Your task to perform on an android device: change your default location settings in chrome Image 0: 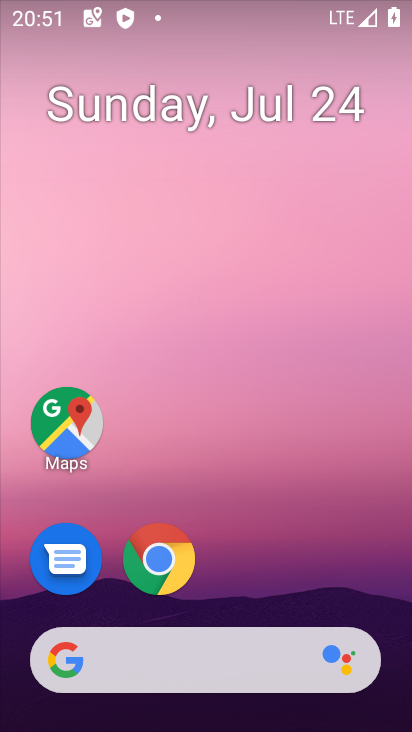
Step 0: press home button
Your task to perform on an android device: change your default location settings in chrome Image 1: 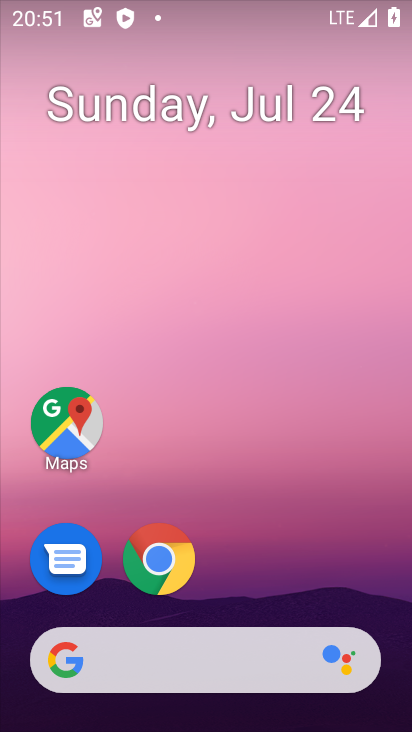
Step 1: drag from (373, 598) to (363, 91)
Your task to perform on an android device: change your default location settings in chrome Image 2: 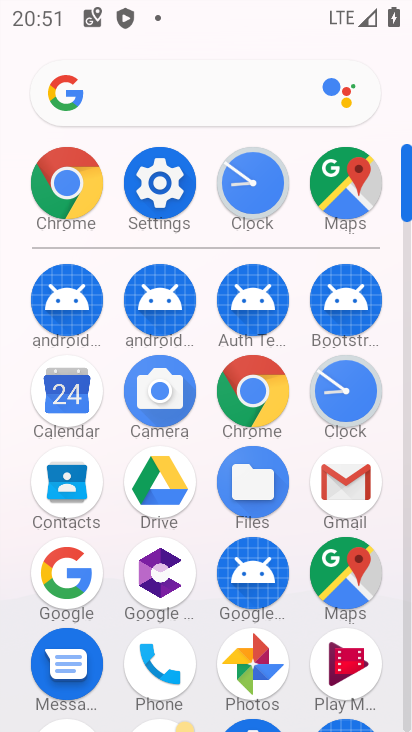
Step 2: click (262, 388)
Your task to perform on an android device: change your default location settings in chrome Image 3: 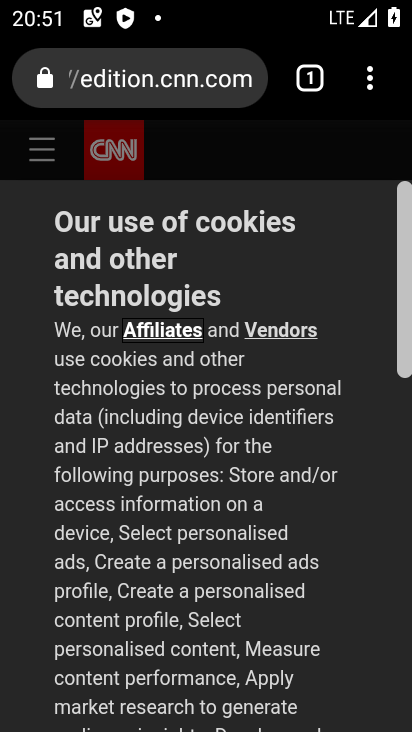
Step 3: click (369, 86)
Your task to perform on an android device: change your default location settings in chrome Image 4: 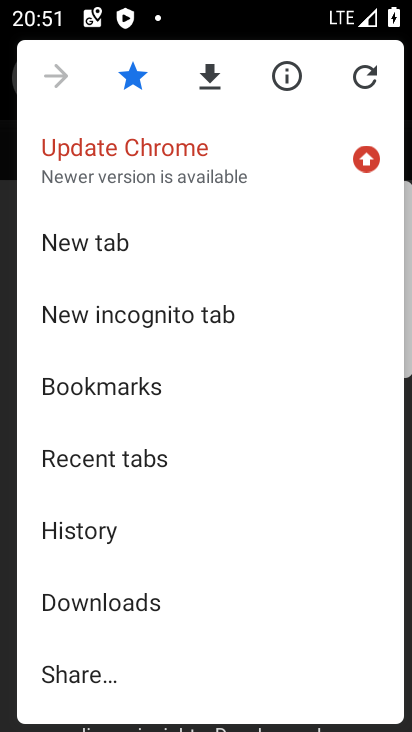
Step 4: drag from (303, 453) to (299, 369)
Your task to perform on an android device: change your default location settings in chrome Image 5: 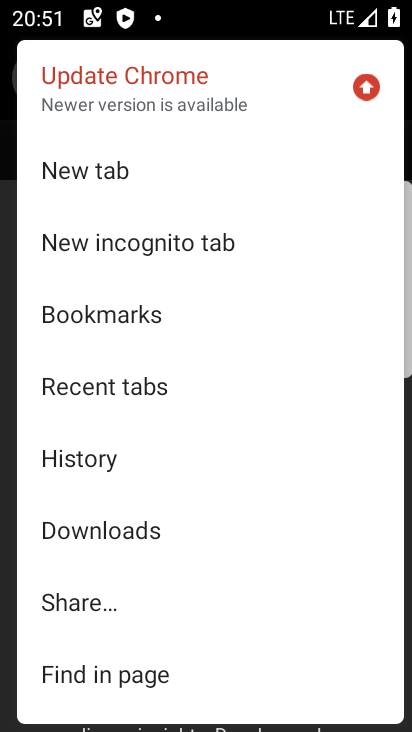
Step 5: drag from (272, 529) to (267, 252)
Your task to perform on an android device: change your default location settings in chrome Image 6: 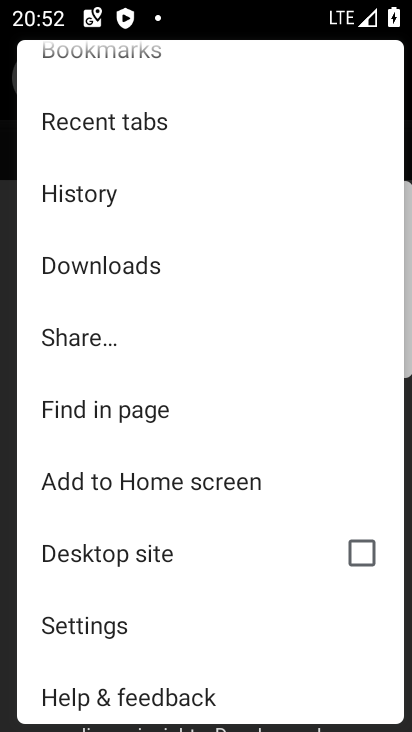
Step 6: drag from (281, 448) to (282, 246)
Your task to perform on an android device: change your default location settings in chrome Image 7: 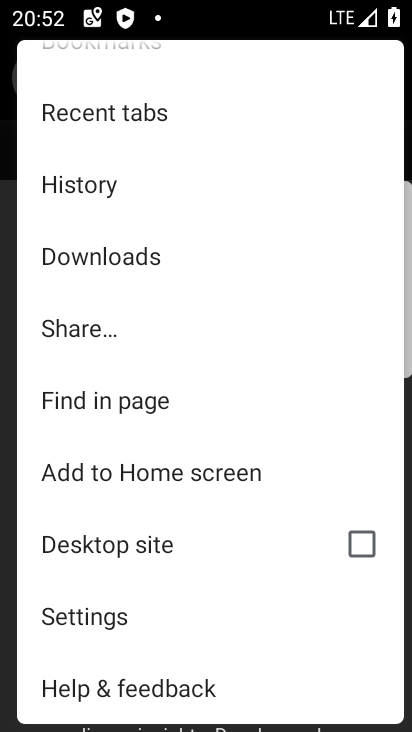
Step 7: click (218, 610)
Your task to perform on an android device: change your default location settings in chrome Image 8: 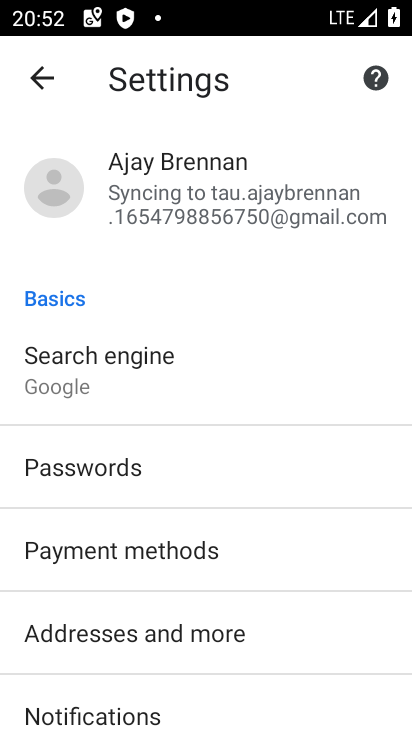
Step 8: drag from (300, 597) to (309, 269)
Your task to perform on an android device: change your default location settings in chrome Image 9: 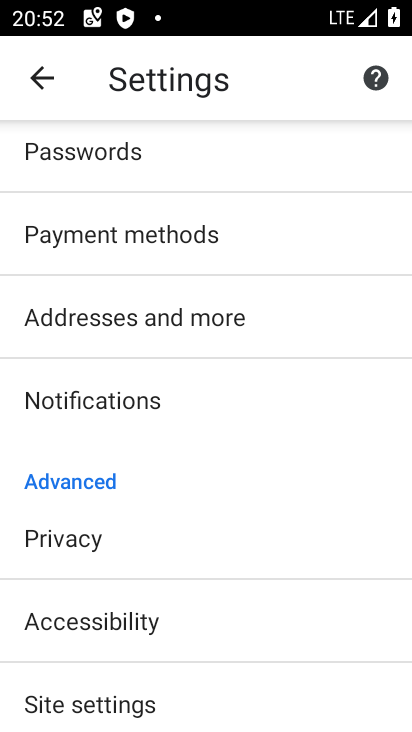
Step 9: drag from (306, 514) to (314, 381)
Your task to perform on an android device: change your default location settings in chrome Image 10: 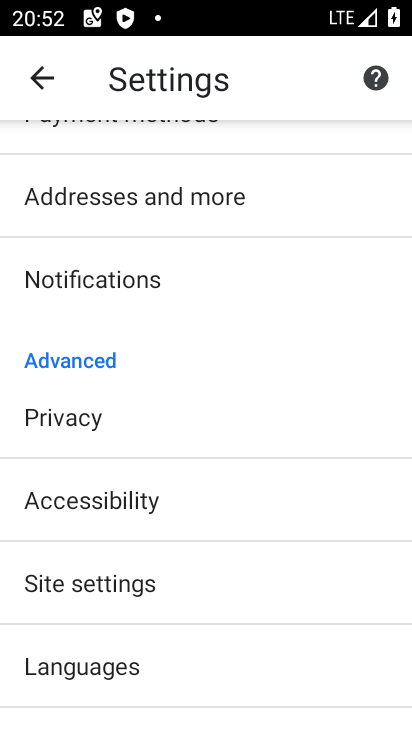
Step 10: drag from (312, 576) to (310, 363)
Your task to perform on an android device: change your default location settings in chrome Image 11: 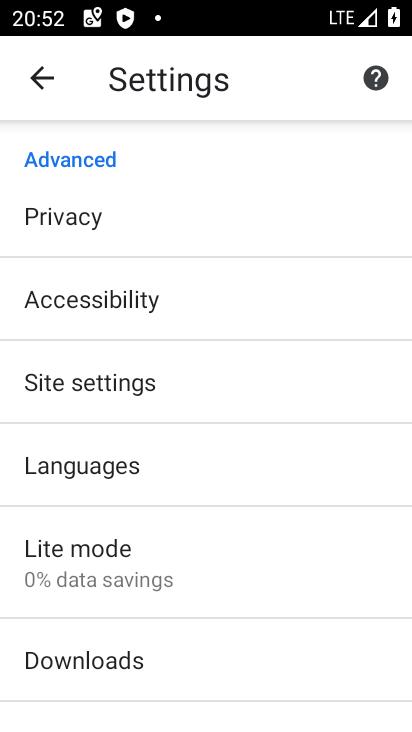
Step 11: click (307, 380)
Your task to perform on an android device: change your default location settings in chrome Image 12: 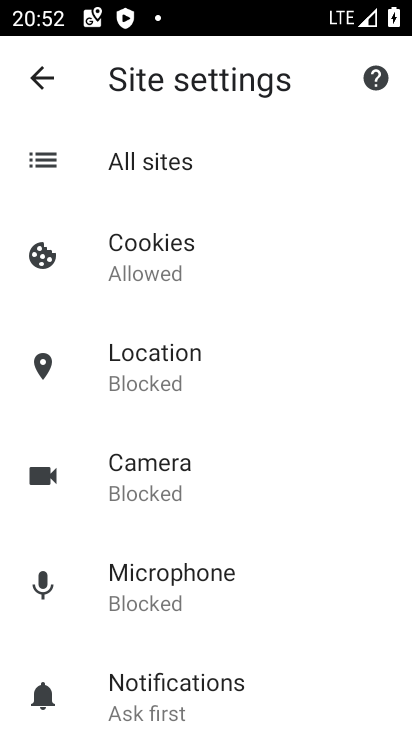
Step 12: drag from (326, 487) to (336, 369)
Your task to perform on an android device: change your default location settings in chrome Image 13: 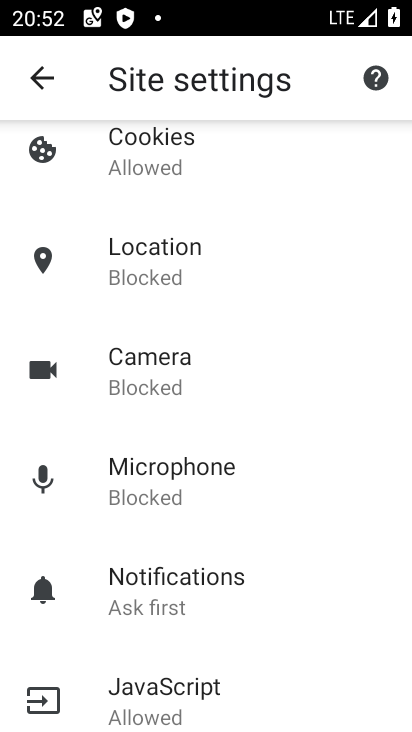
Step 13: click (245, 280)
Your task to perform on an android device: change your default location settings in chrome Image 14: 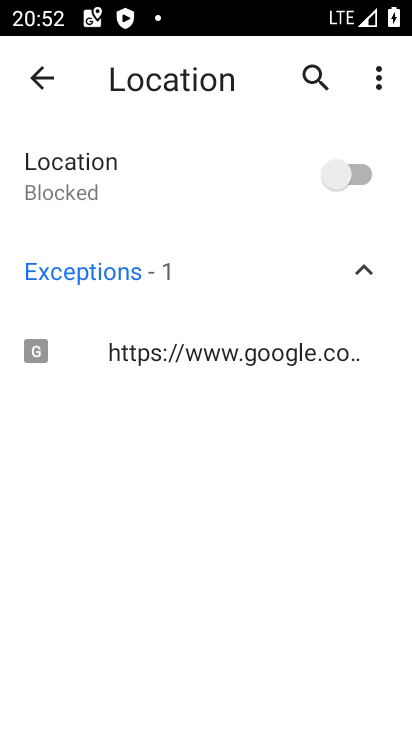
Step 14: click (348, 176)
Your task to perform on an android device: change your default location settings in chrome Image 15: 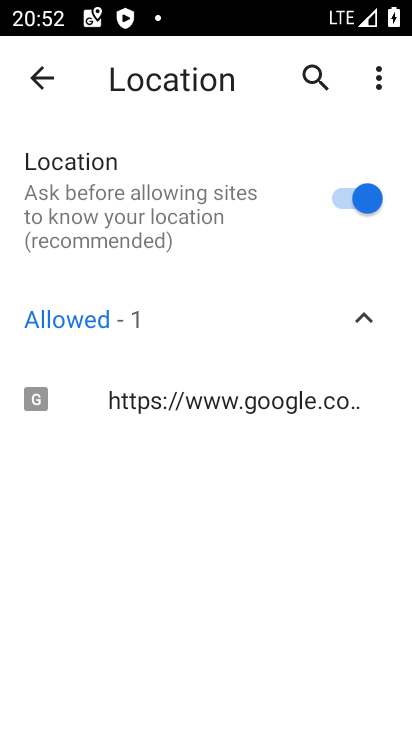
Step 15: task complete